Your task to perform on an android device: turn off location history Image 0: 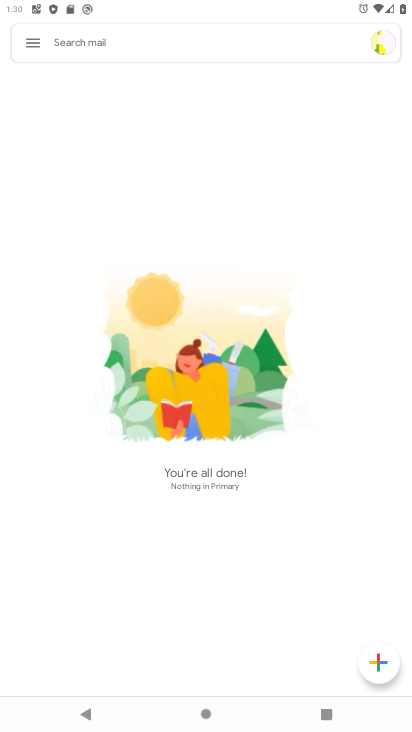
Step 0: press home button
Your task to perform on an android device: turn off location history Image 1: 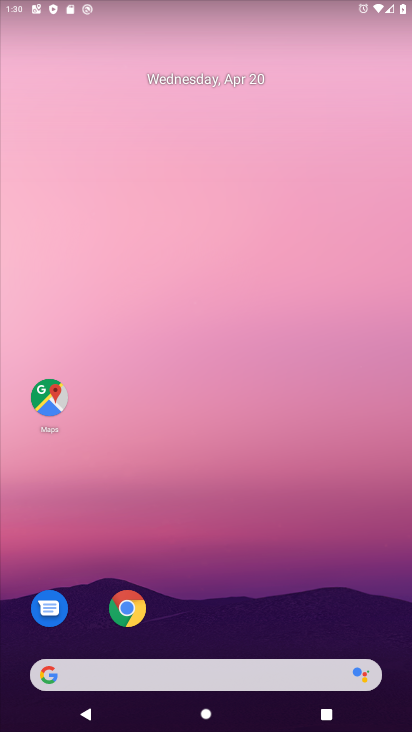
Step 1: drag from (214, 725) to (177, 129)
Your task to perform on an android device: turn off location history Image 2: 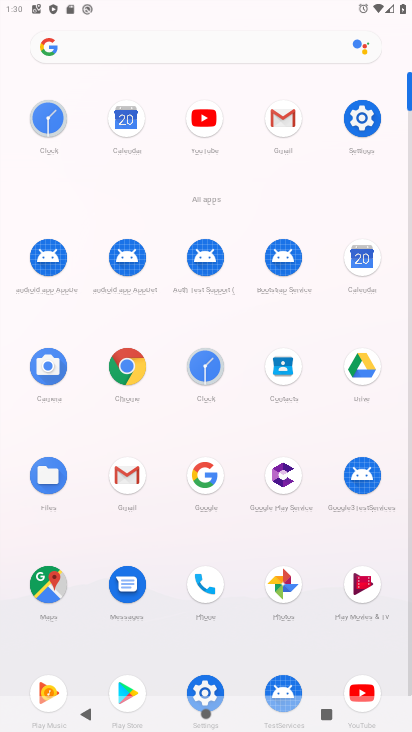
Step 2: click (359, 120)
Your task to perform on an android device: turn off location history Image 3: 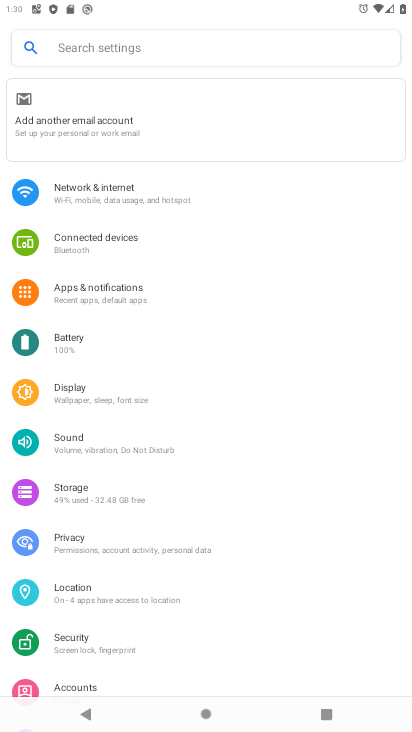
Step 3: click (109, 595)
Your task to perform on an android device: turn off location history Image 4: 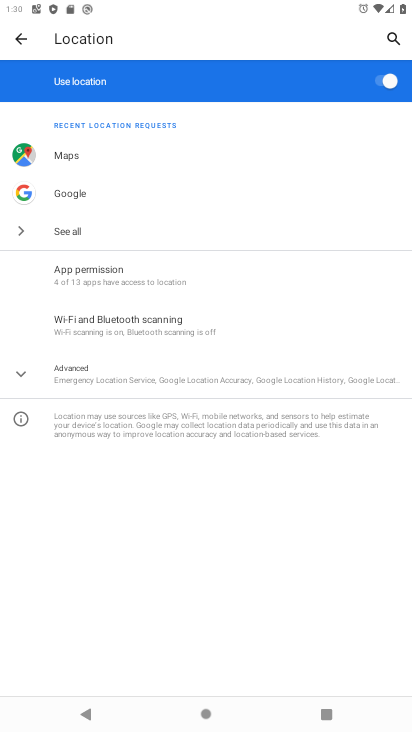
Step 4: click (88, 372)
Your task to perform on an android device: turn off location history Image 5: 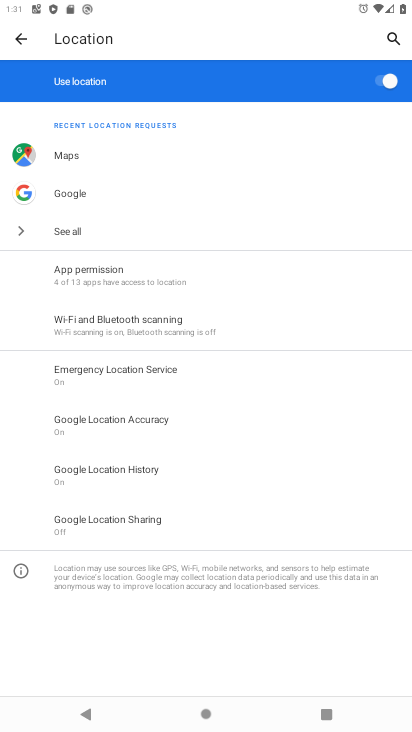
Step 5: click (139, 467)
Your task to perform on an android device: turn off location history Image 6: 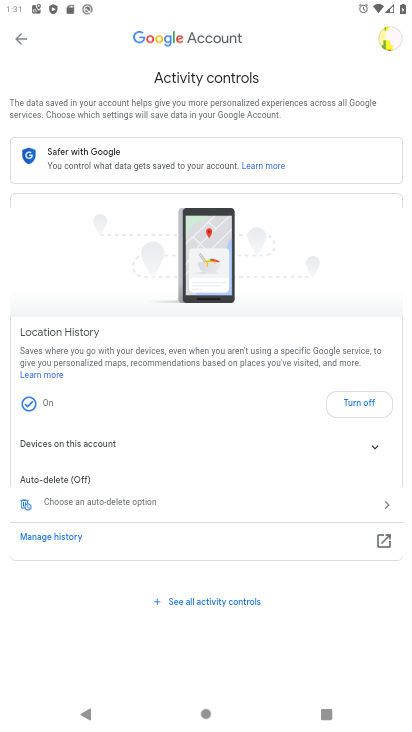
Step 6: click (347, 396)
Your task to perform on an android device: turn off location history Image 7: 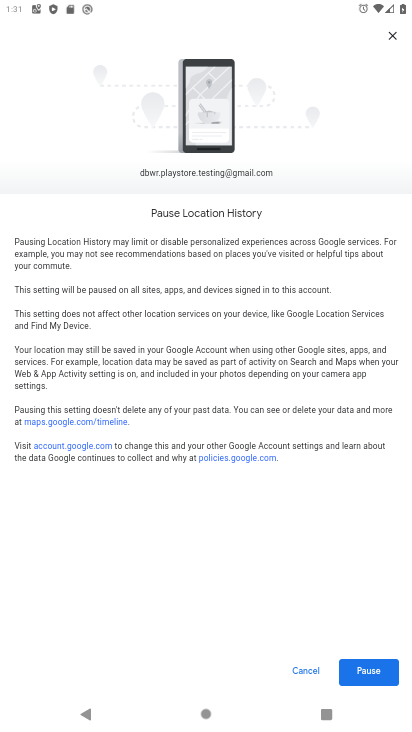
Step 7: click (373, 670)
Your task to perform on an android device: turn off location history Image 8: 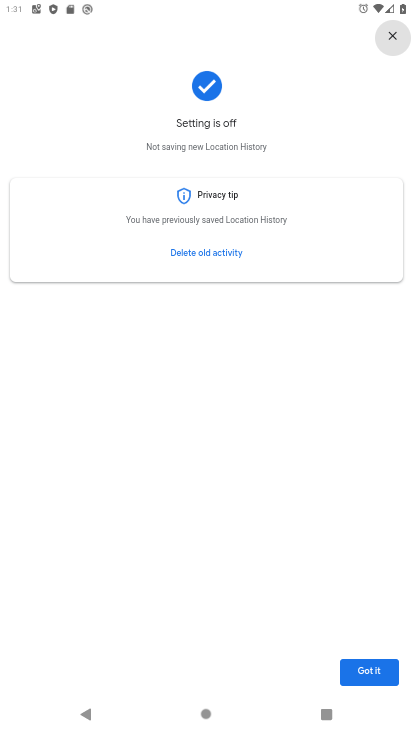
Step 8: task complete